Your task to perform on an android device: change text size in settings app Image 0: 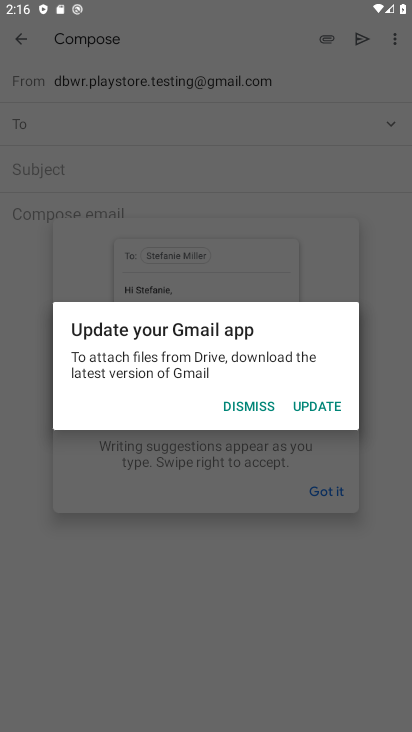
Step 0: press home button
Your task to perform on an android device: change text size in settings app Image 1: 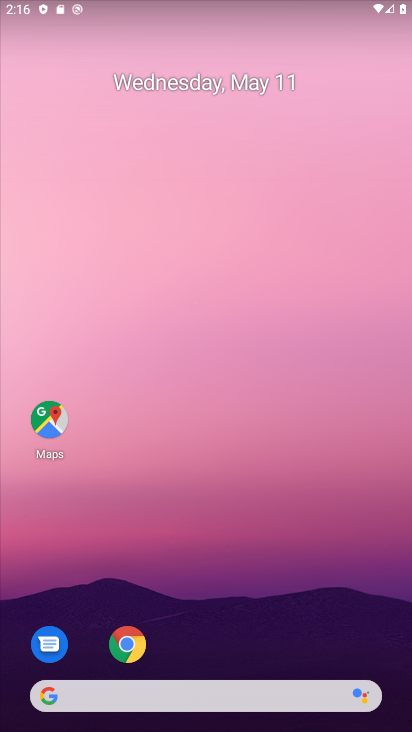
Step 1: drag from (178, 676) to (188, 239)
Your task to perform on an android device: change text size in settings app Image 2: 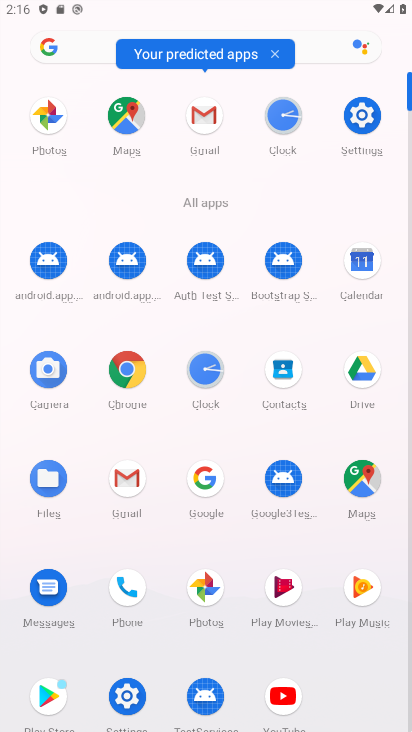
Step 2: click (356, 126)
Your task to perform on an android device: change text size in settings app Image 3: 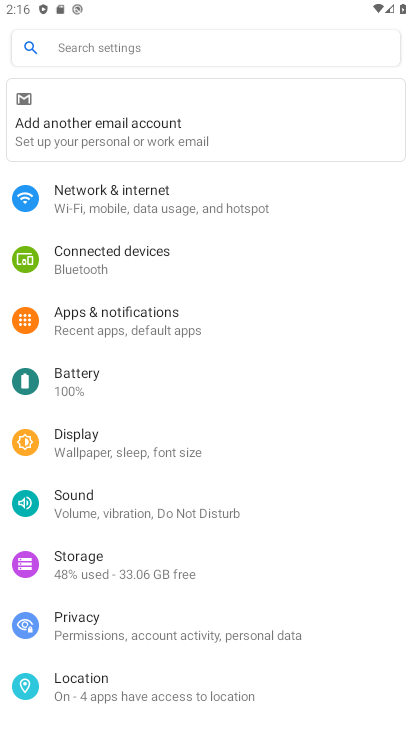
Step 3: drag from (185, 680) to (185, 310)
Your task to perform on an android device: change text size in settings app Image 4: 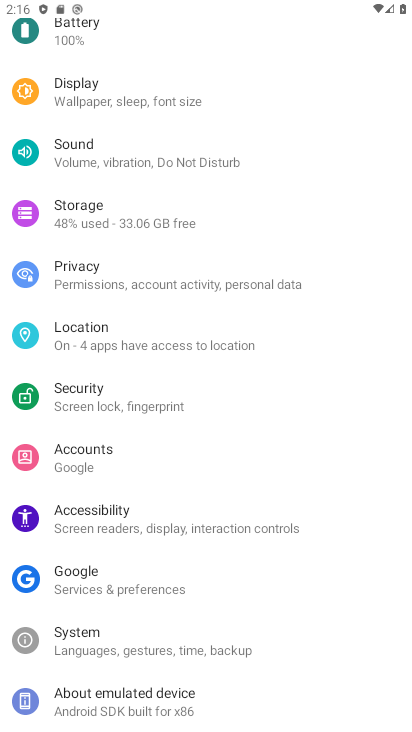
Step 4: click (101, 522)
Your task to perform on an android device: change text size in settings app Image 5: 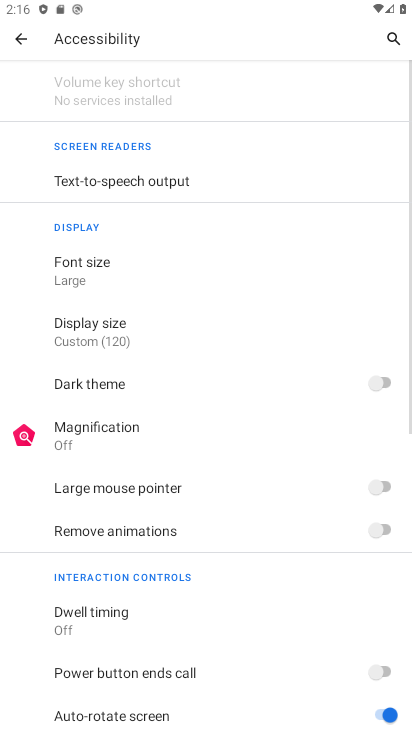
Step 5: click (125, 261)
Your task to perform on an android device: change text size in settings app Image 6: 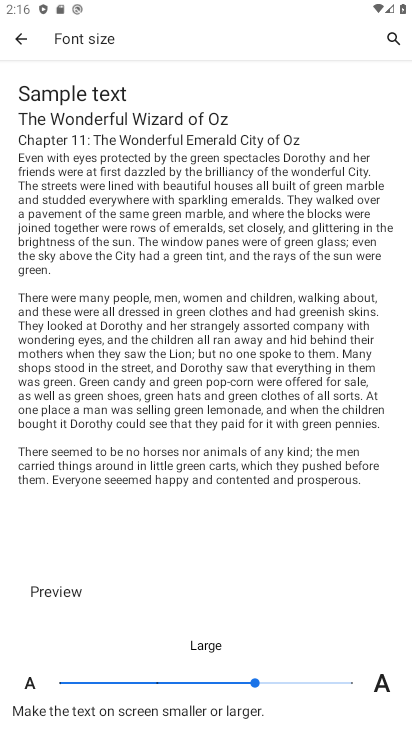
Step 6: click (208, 681)
Your task to perform on an android device: change text size in settings app Image 7: 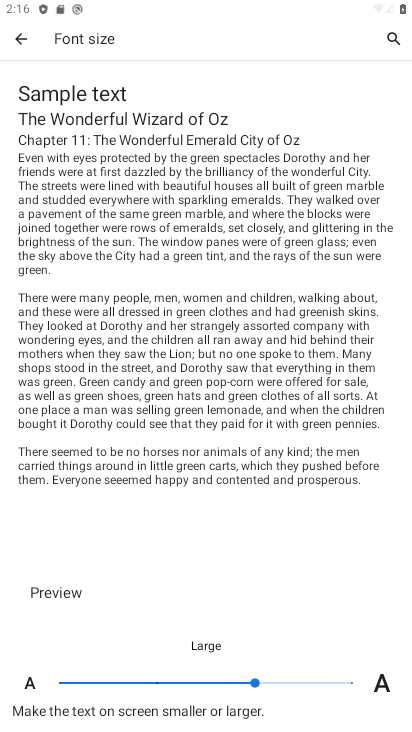
Step 7: click (255, 682)
Your task to perform on an android device: change text size in settings app Image 8: 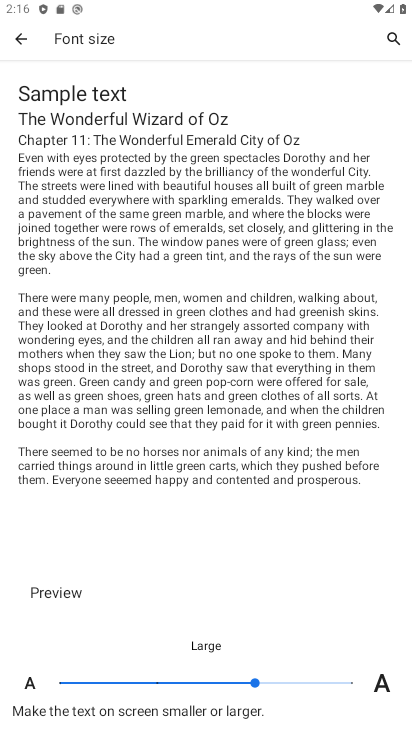
Step 8: click (231, 681)
Your task to perform on an android device: change text size in settings app Image 9: 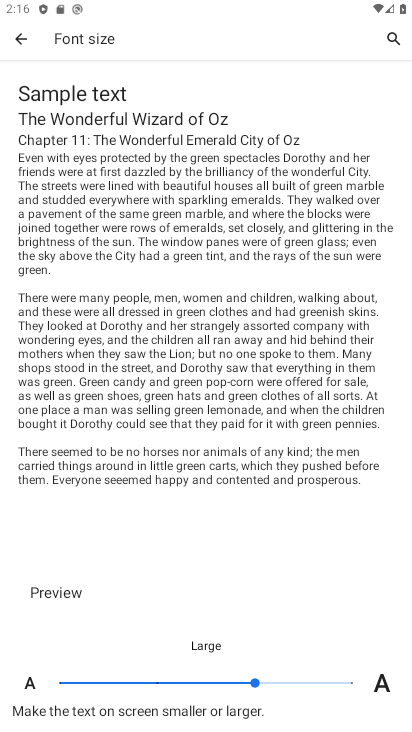
Step 9: click (196, 684)
Your task to perform on an android device: change text size in settings app Image 10: 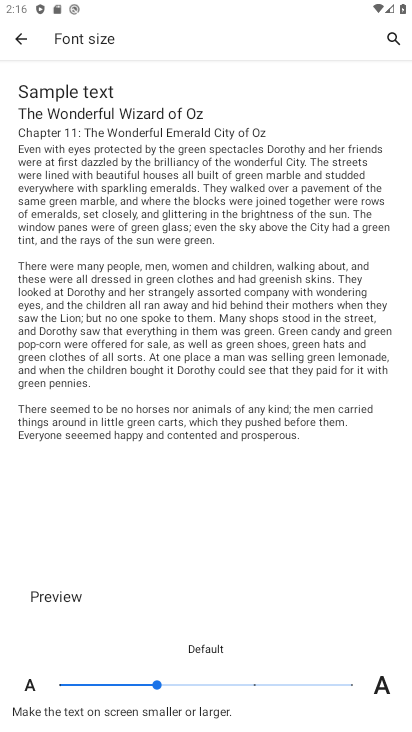
Step 10: task complete